Your task to perform on an android device: turn off improve location accuracy Image 0: 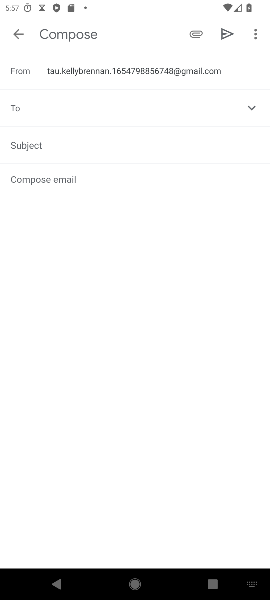
Step 0: press home button
Your task to perform on an android device: turn off improve location accuracy Image 1: 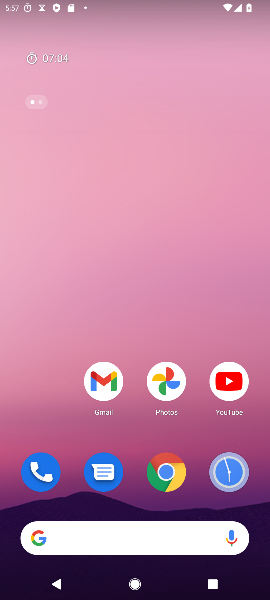
Step 1: drag from (159, 494) to (129, 31)
Your task to perform on an android device: turn off improve location accuracy Image 2: 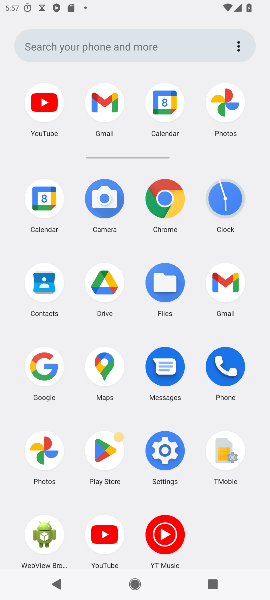
Step 2: click (168, 450)
Your task to perform on an android device: turn off improve location accuracy Image 3: 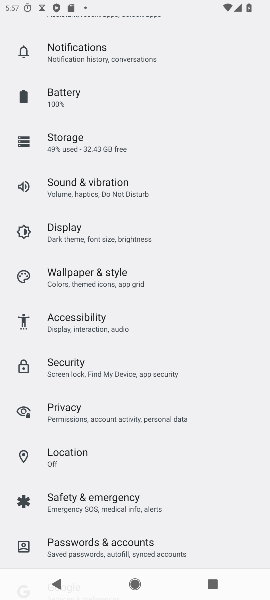
Step 3: click (63, 464)
Your task to perform on an android device: turn off improve location accuracy Image 4: 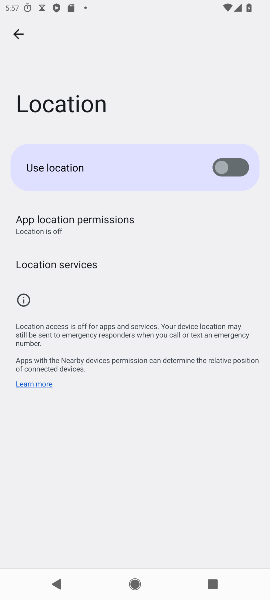
Step 4: click (51, 266)
Your task to perform on an android device: turn off improve location accuracy Image 5: 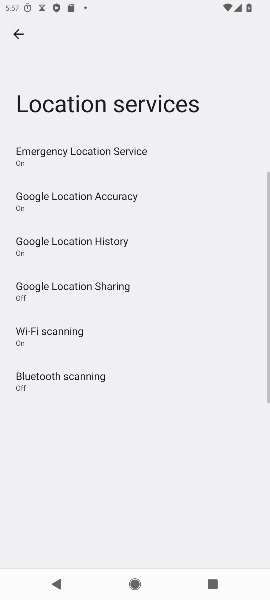
Step 5: click (109, 204)
Your task to perform on an android device: turn off improve location accuracy Image 6: 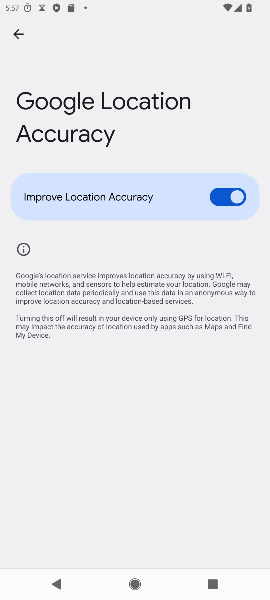
Step 6: click (239, 199)
Your task to perform on an android device: turn off improve location accuracy Image 7: 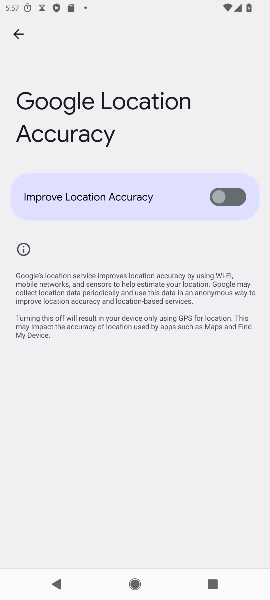
Step 7: task complete